Your task to perform on an android device: Go to Google Image 0: 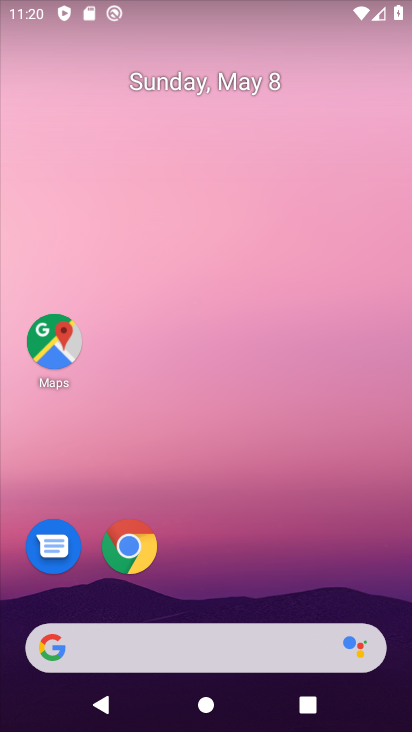
Step 0: drag from (211, 548) to (230, 191)
Your task to perform on an android device: Go to Google Image 1: 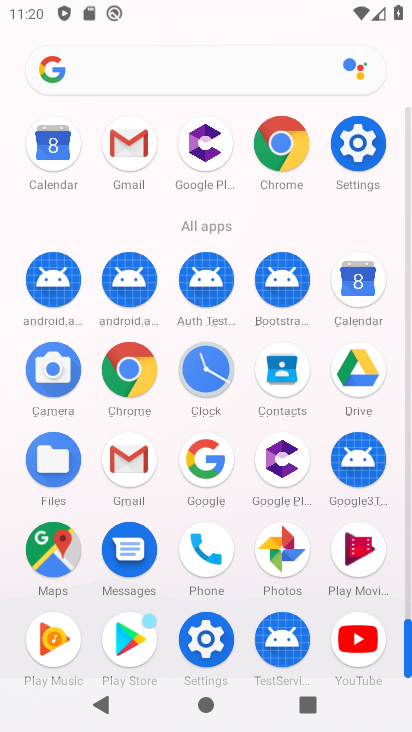
Step 1: click (222, 467)
Your task to perform on an android device: Go to Google Image 2: 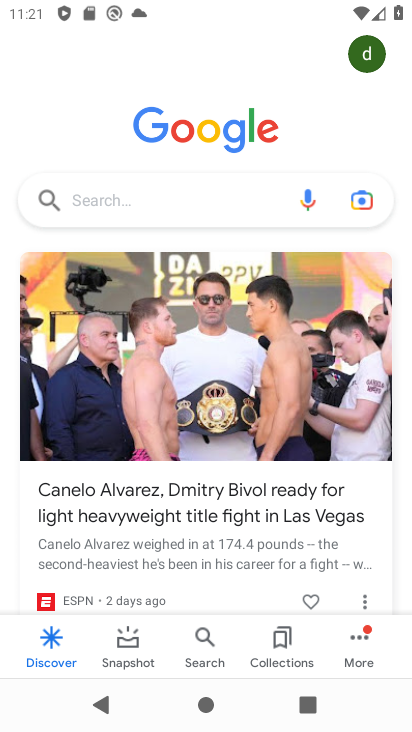
Step 2: task complete